Your task to perform on an android device: Open Youtube and go to the subscriptions tab Image 0: 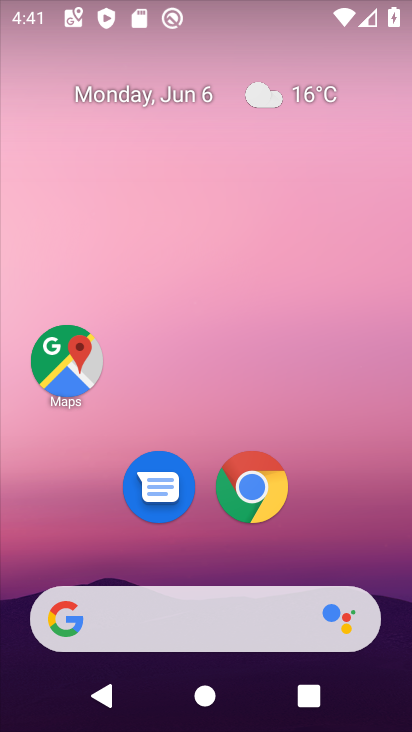
Step 0: drag from (358, 525) to (260, 0)
Your task to perform on an android device: Open Youtube and go to the subscriptions tab Image 1: 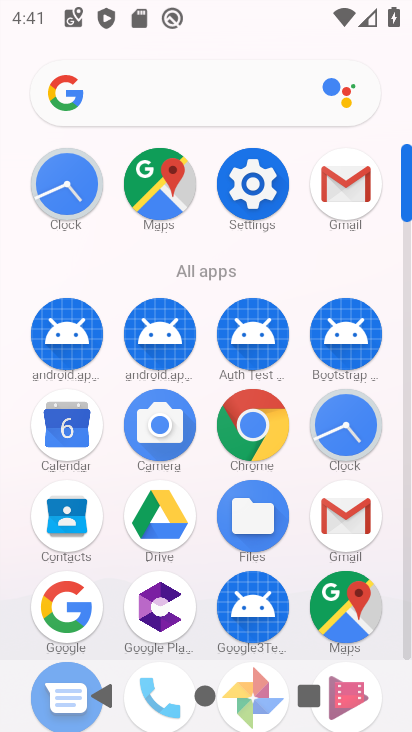
Step 1: drag from (192, 452) to (202, 63)
Your task to perform on an android device: Open Youtube and go to the subscriptions tab Image 2: 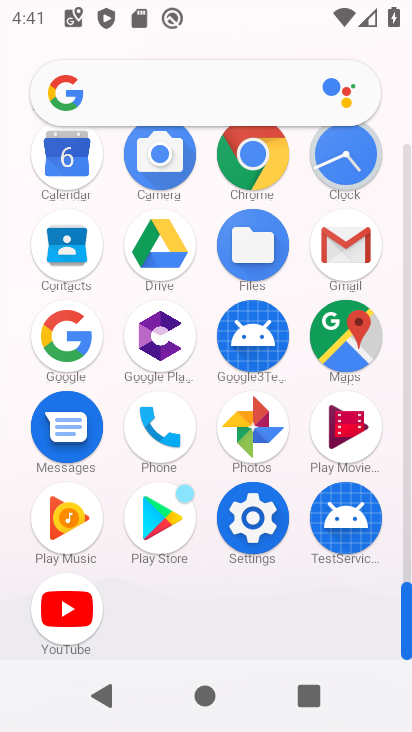
Step 2: click (92, 595)
Your task to perform on an android device: Open Youtube and go to the subscriptions tab Image 3: 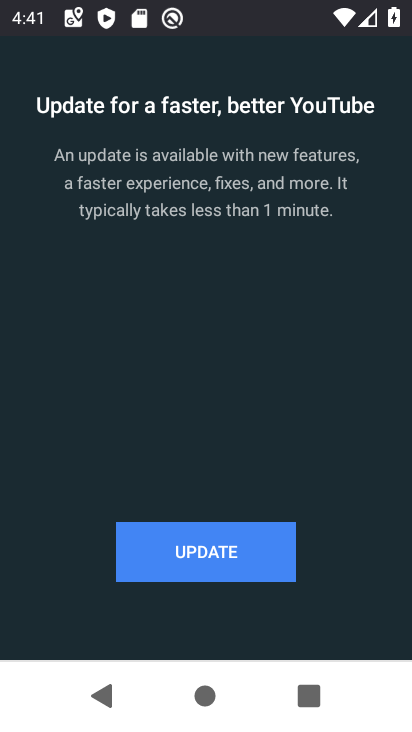
Step 3: click (210, 549)
Your task to perform on an android device: Open Youtube and go to the subscriptions tab Image 4: 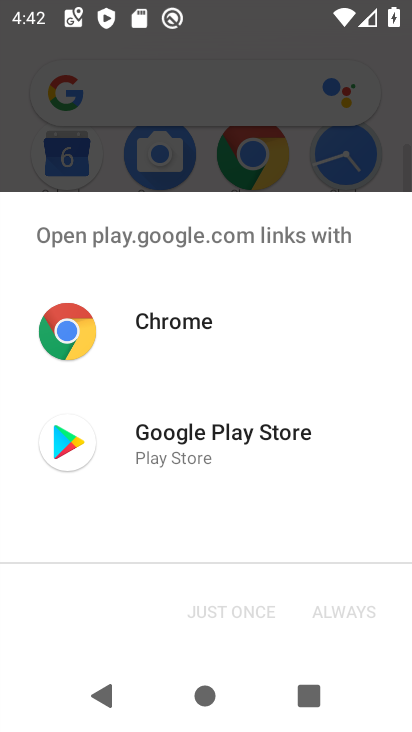
Step 4: click (133, 431)
Your task to perform on an android device: Open Youtube and go to the subscriptions tab Image 5: 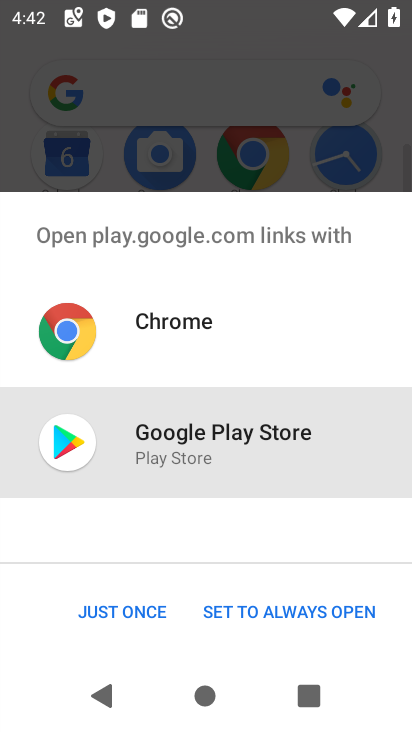
Step 5: click (118, 606)
Your task to perform on an android device: Open Youtube and go to the subscriptions tab Image 6: 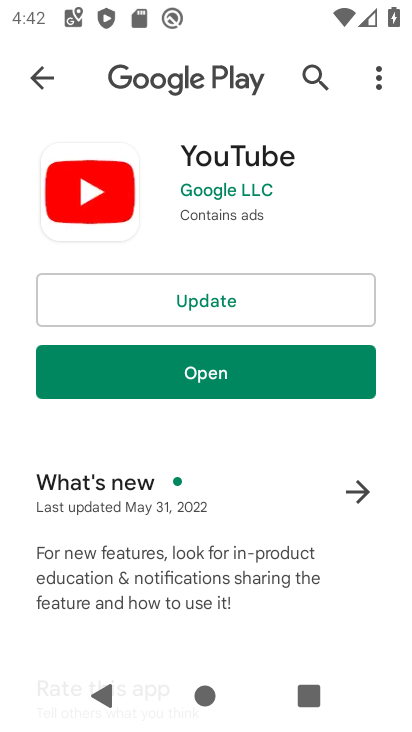
Step 6: click (269, 301)
Your task to perform on an android device: Open Youtube and go to the subscriptions tab Image 7: 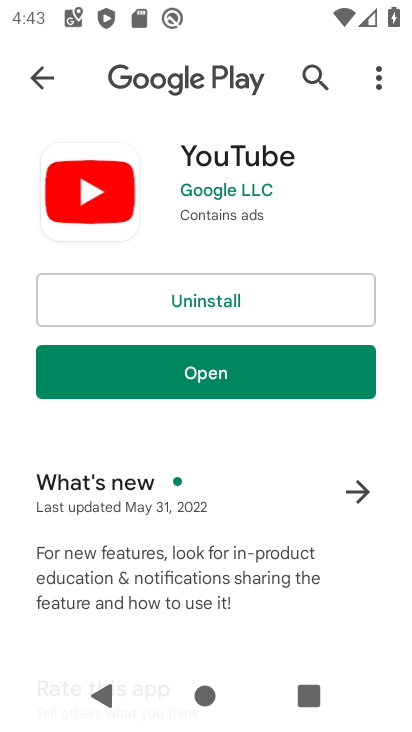
Step 7: click (261, 378)
Your task to perform on an android device: Open Youtube and go to the subscriptions tab Image 8: 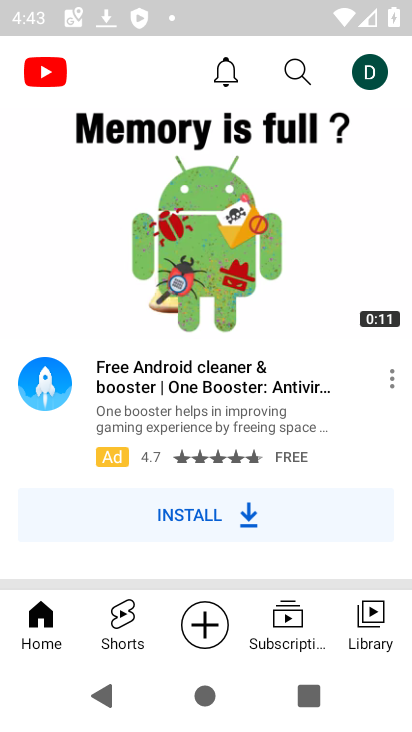
Step 8: click (287, 629)
Your task to perform on an android device: Open Youtube and go to the subscriptions tab Image 9: 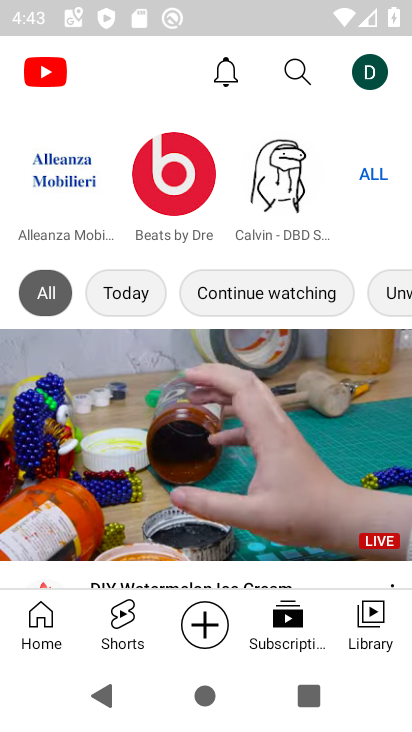
Step 9: task complete